Your task to perform on an android device: Open Chrome and go to the settings page Image 0: 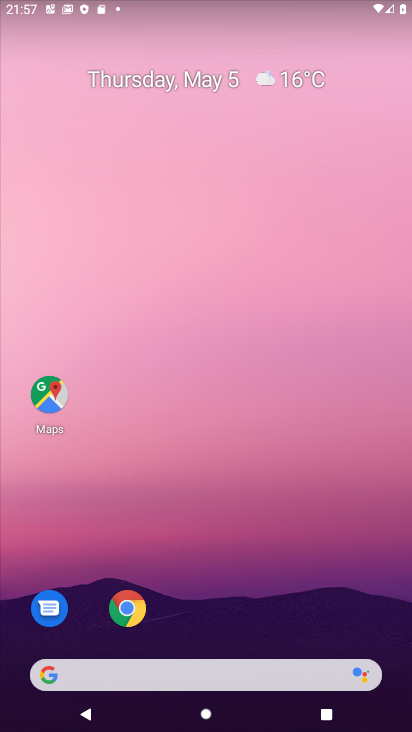
Step 0: click (122, 615)
Your task to perform on an android device: Open Chrome and go to the settings page Image 1: 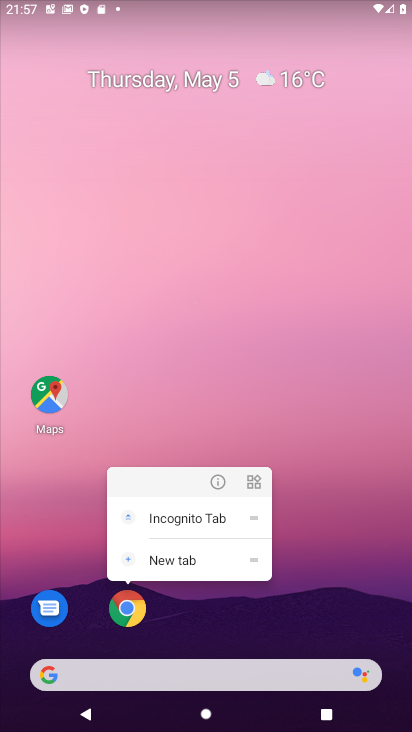
Step 1: click (132, 600)
Your task to perform on an android device: Open Chrome and go to the settings page Image 2: 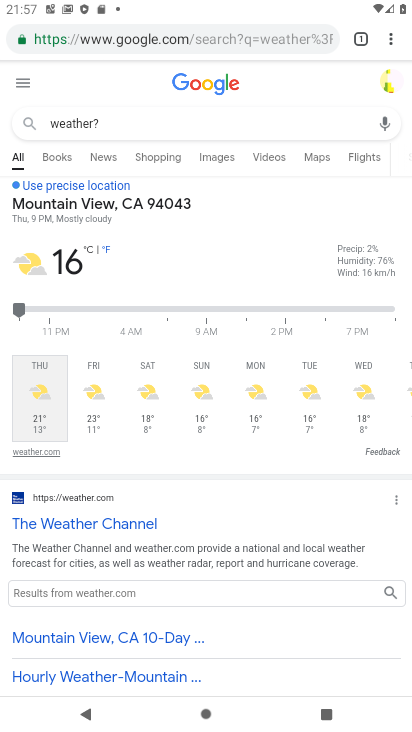
Step 2: task complete